Your task to perform on an android device: Open calendar and show me the second week of next month Image 0: 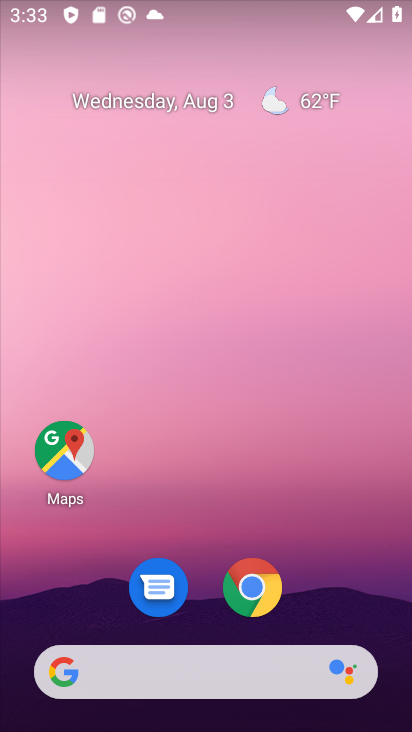
Step 0: drag from (68, 632) to (302, 22)
Your task to perform on an android device: Open calendar and show me the second week of next month Image 1: 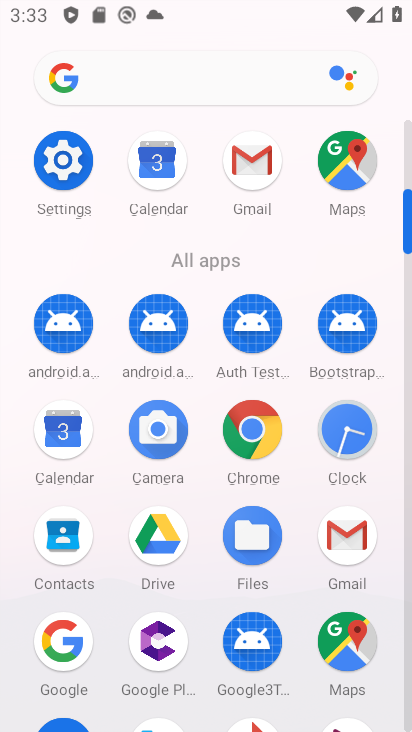
Step 1: click (41, 439)
Your task to perform on an android device: Open calendar and show me the second week of next month Image 2: 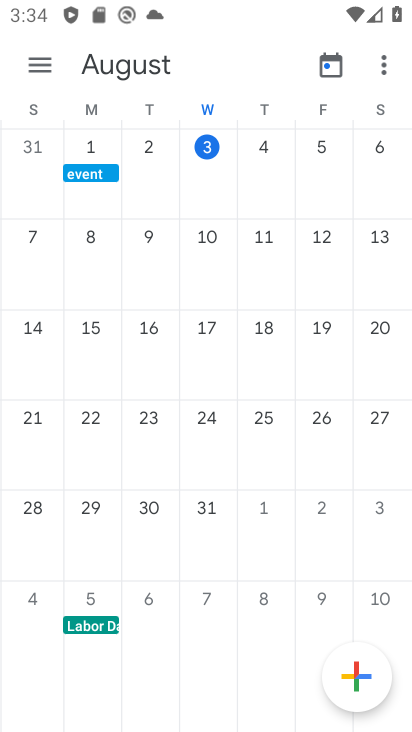
Step 2: task complete